Your task to perform on an android device: Open eBay Image 0: 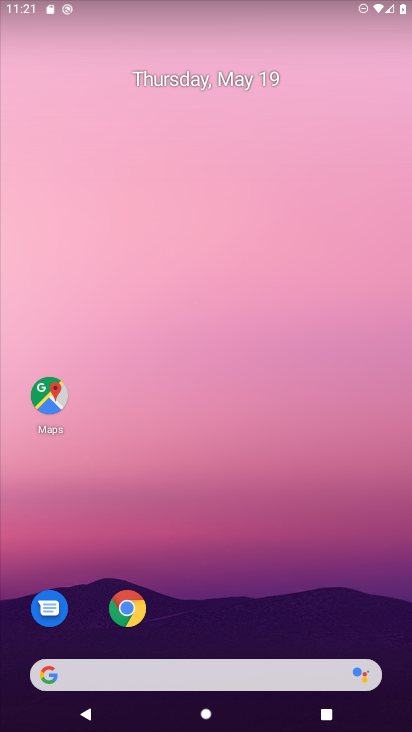
Step 0: click (132, 611)
Your task to perform on an android device: Open eBay Image 1: 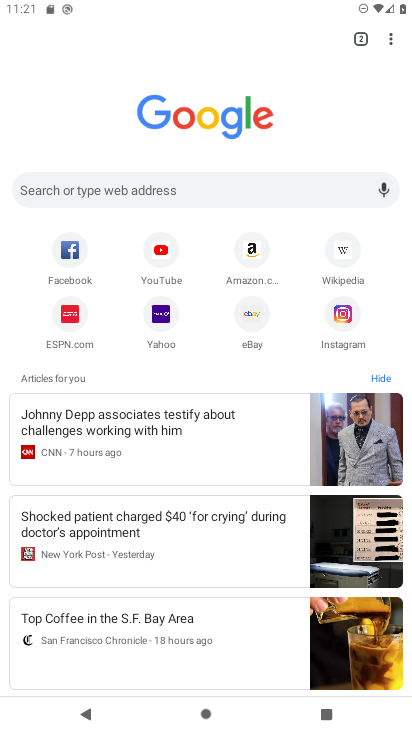
Step 1: click (247, 329)
Your task to perform on an android device: Open eBay Image 2: 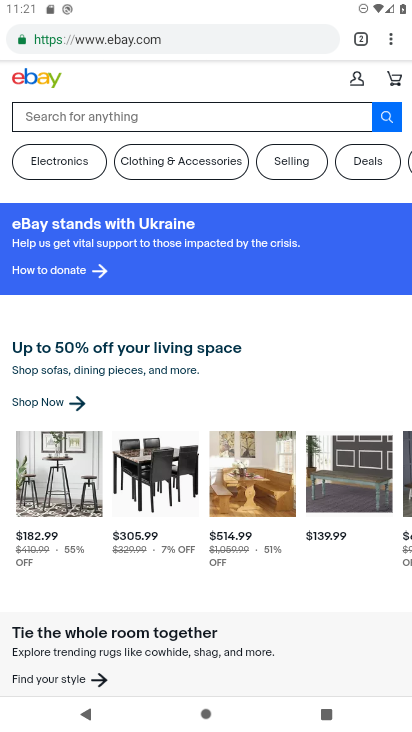
Step 2: task complete